Your task to perform on an android device: check battery use Image 0: 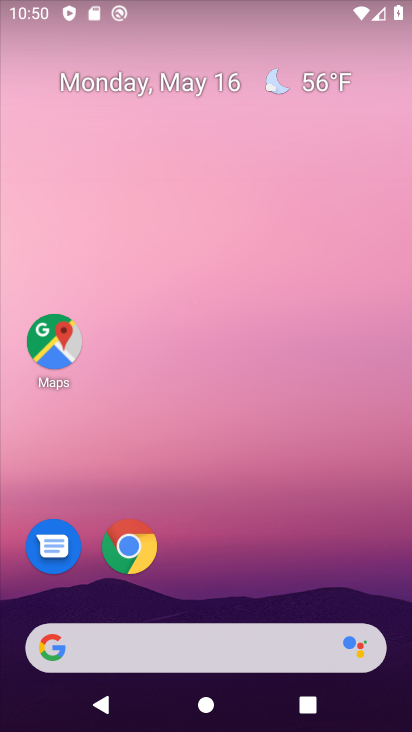
Step 0: drag from (268, 553) to (299, 0)
Your task to perform on an android device: check battery use Image 1: 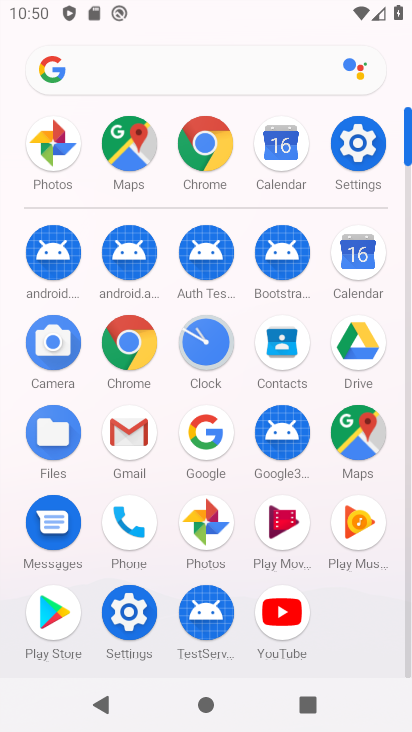
Step 1: click (374, 143)
Your task to perform on an android device: check battery use Image 2: 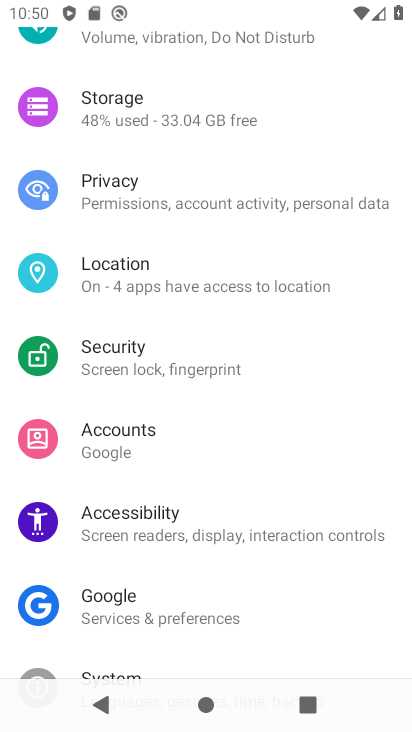
Step 2: drag from (257, 135) to (241, 543)
Your task to perform on an android device: check battery use Image 3: 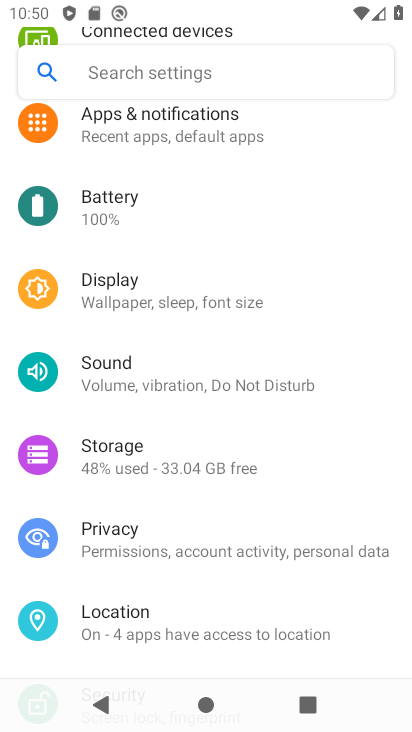
Step 3: drag from (196, 180) to (204, 572)
Your task to perform on an android device: check battery use Image 4: 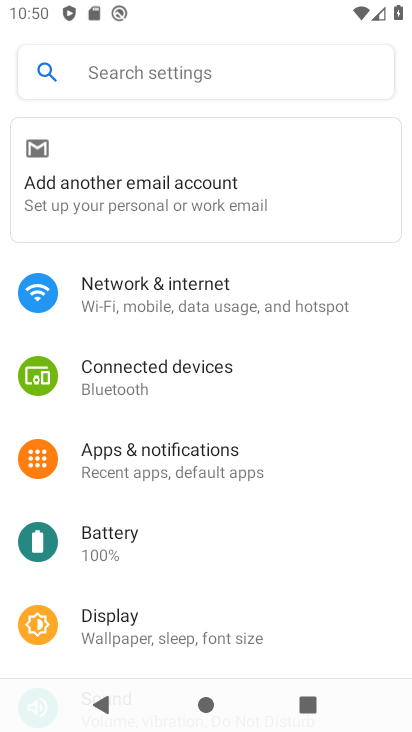
Step 4: drag from (170, 229) to (223, 556)
Your task to perform on an android device: check battery use Image 5: 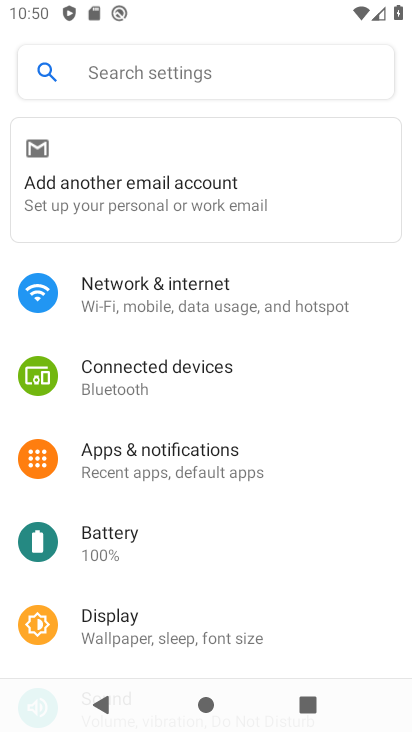
Step 5: click (135, 546)
Your task to perform on an android device: check battery use Image 6: 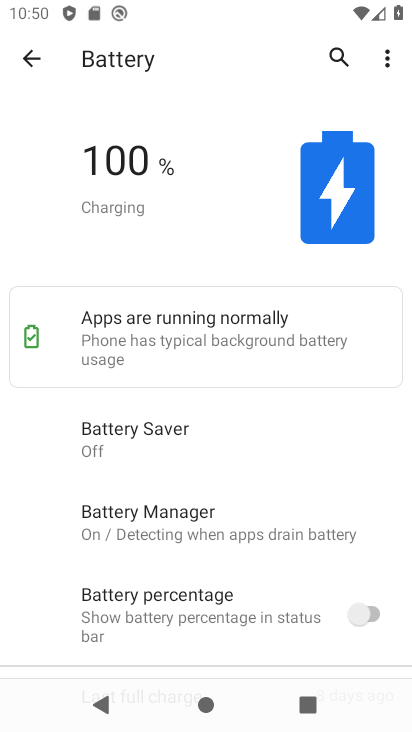
Step 6: task complete